Your task to perform on an android device: check data usage Image 0: 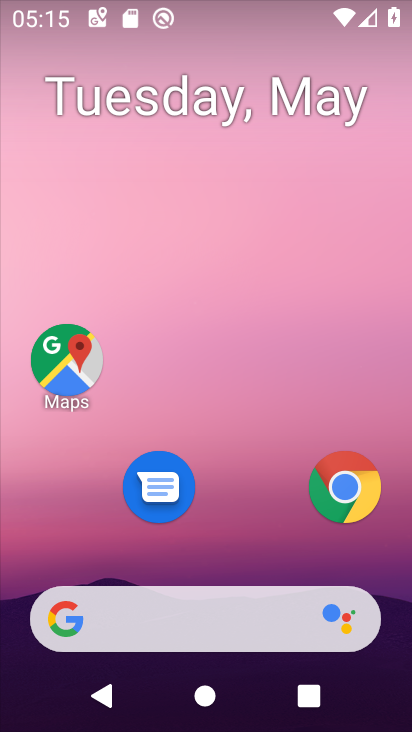
Step 0: drag from (282, 554) to (256, 133)
Your task to perform on an android device: check data usage Image 1: 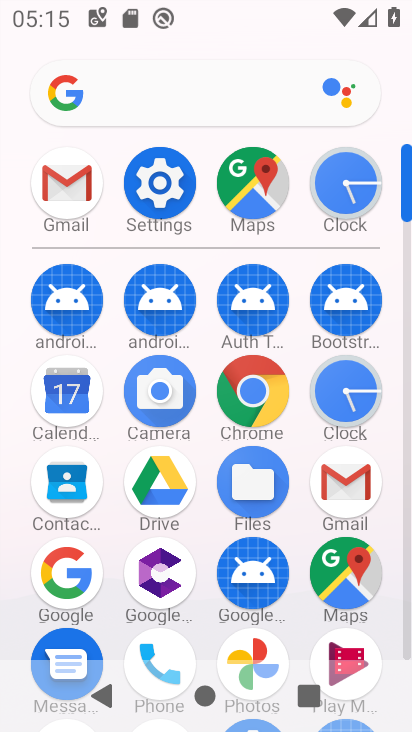
Step 1: click (165, 214)
Your task to perform on an android device: check data usage Image 2: 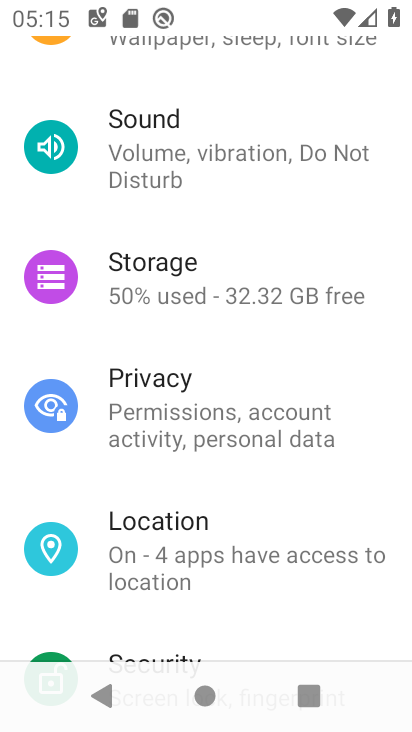
Step 2: drag from (204, 159) to (197, 726)
Your task to perform on an android device: check data usage Image 3: 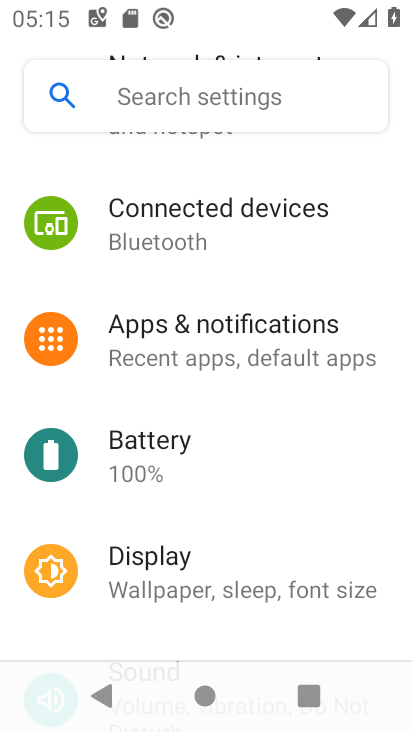
Step 3: drag from (164, 357) to (171, 723)
Your task to perform on an android device: check data usage Image 4: 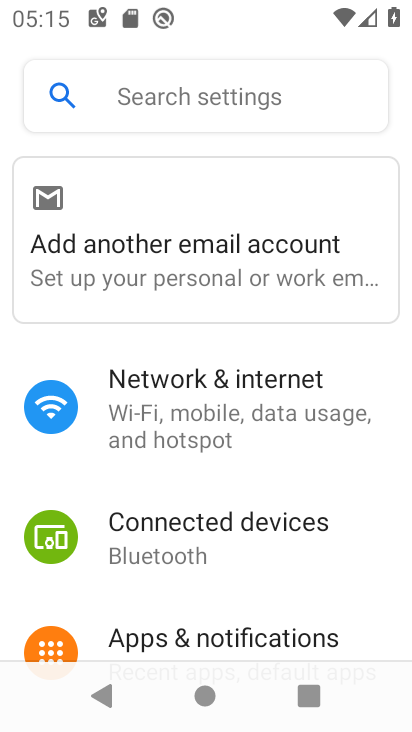
Step 4: click (171, 459)
Your task to perform on an android device: check data usage Image 5: 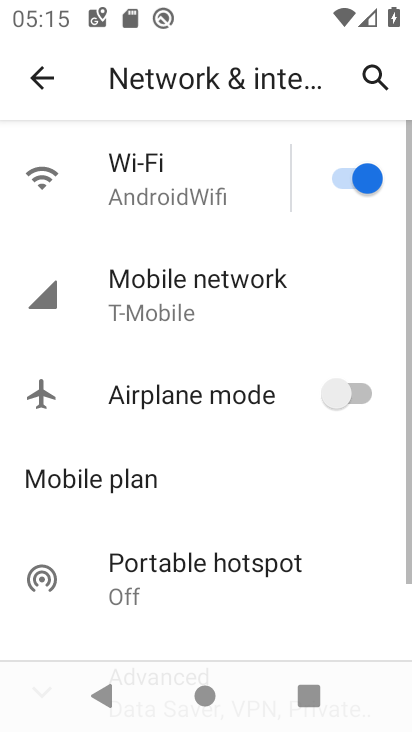
Step 5: click (164, 297)
Your task to perform on an android device: check data usage Image 6: 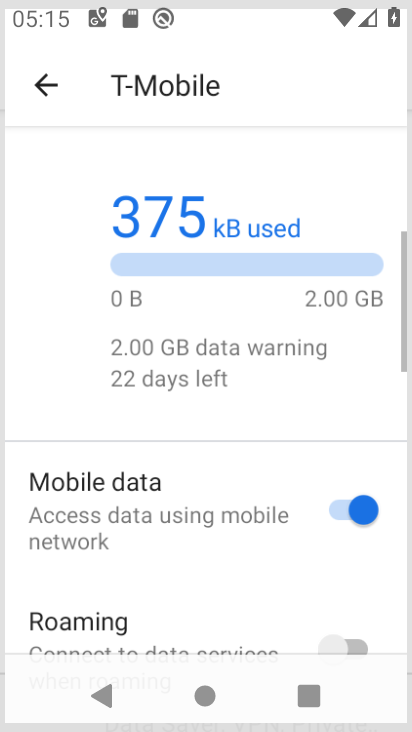
Step 6: task complete